Your task to perform on an android device: Open the web browser Image 0: 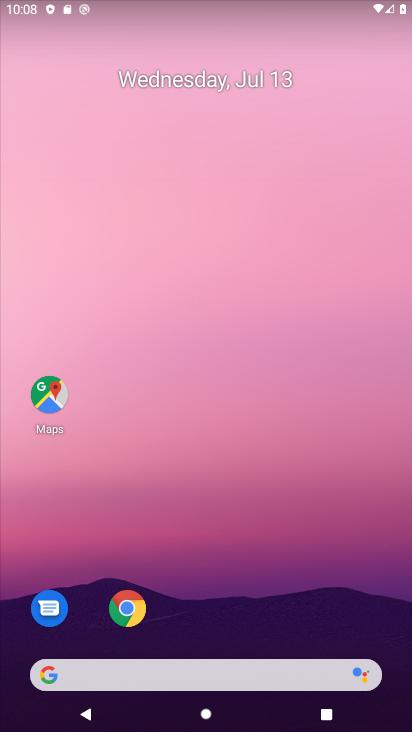
Step 0: press home button
Your task to perform on an android device: Open the web browser Image 1: 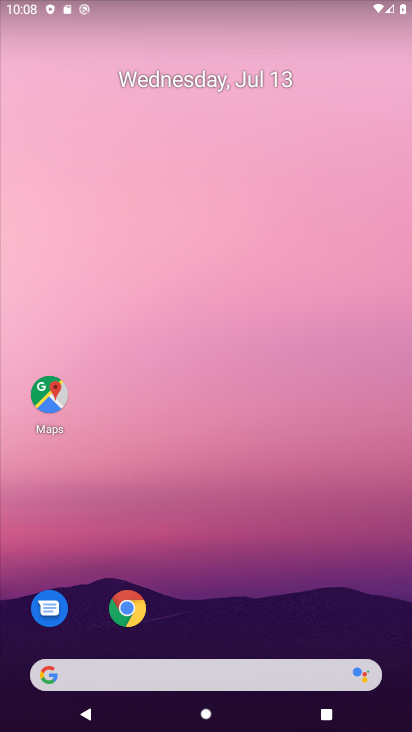
Step 1: click (178, 663)
Your task to perform on an android device: Open the web browser Image 2: 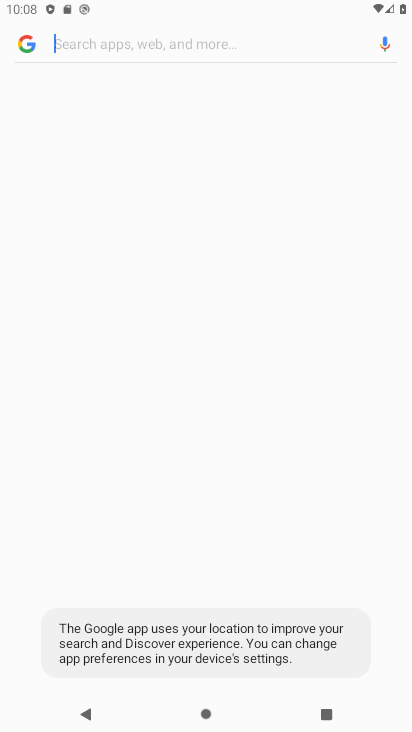
Step 2: click (42, 677)
Your task to perform on an android device: Open the web browser Image 3: 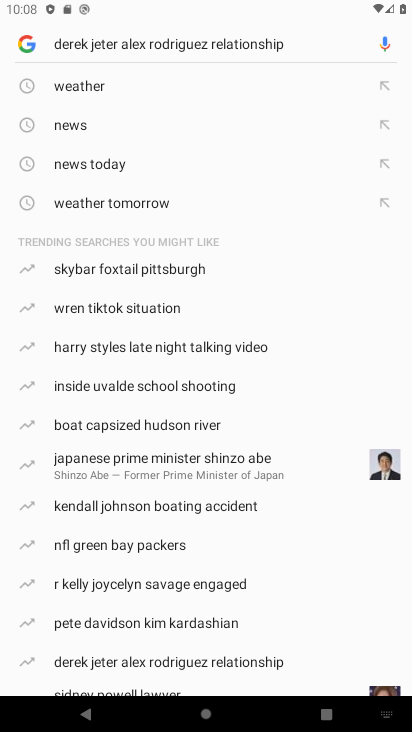
Step 3: click (21, 40)
Your task to perform on an android device: Open the web browser Image 4: 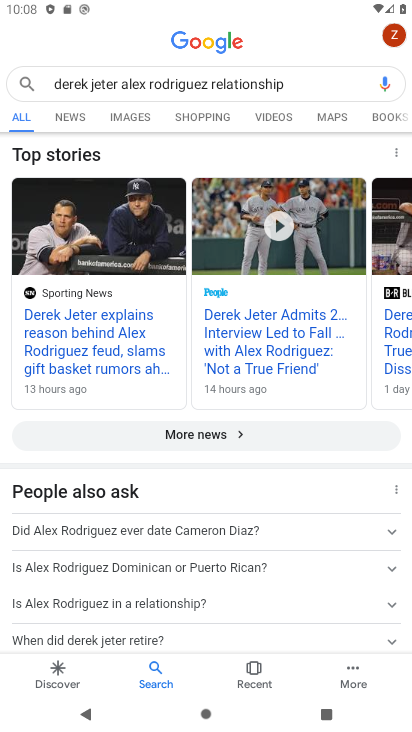
Step 4: click (219, 39)
Your task to perform on an android device: Open the web browser Image 5: 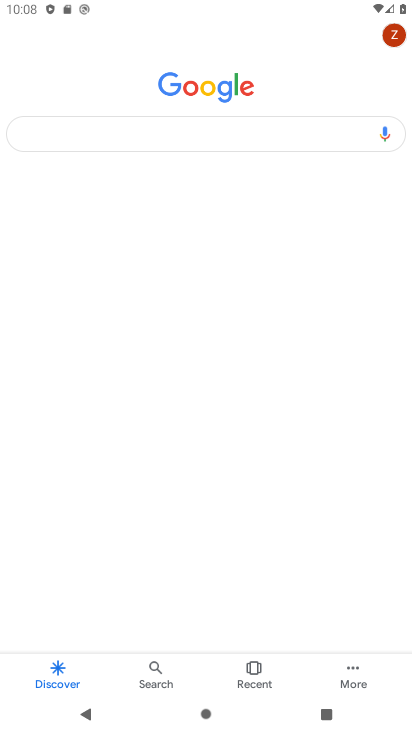
Step 5: task complete